Your task to perform on an android device: What's on my calendar tomorrow? Image 0: 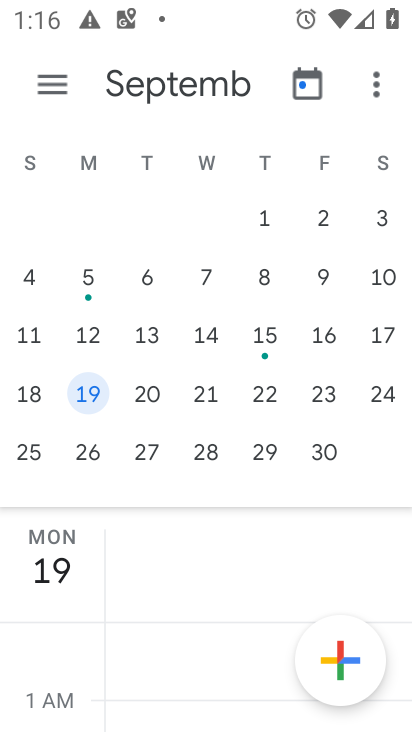
Step 0: drag from (58, 274) to (407, 321)
Your task to perform on an android device: What's on my calendar tomorrow? Image 1: 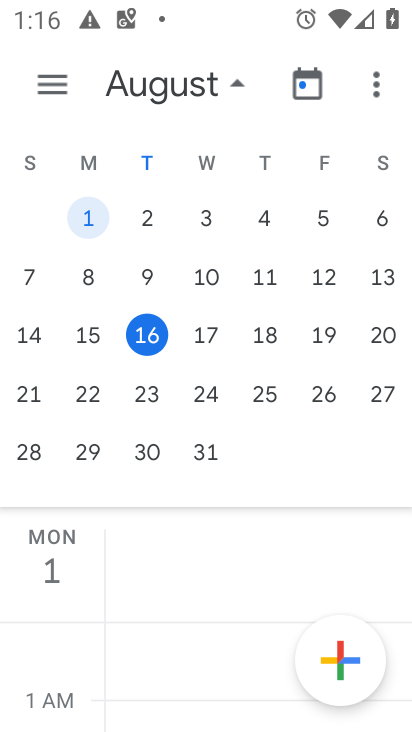
Step 1: click (144, 325)
Your task to perform on an android device: What's on my calendar tomorrow? Image 2: 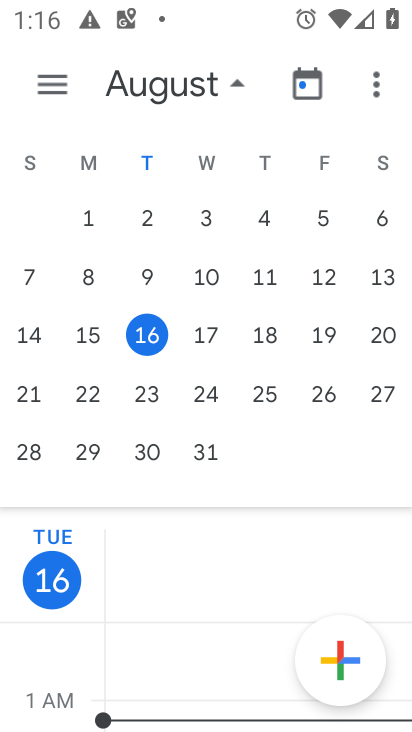
Step 2: drag from (208, 560) to (282, 79)
Your task to perform on an android device: What's on my calendar tomorrow? Image 3: 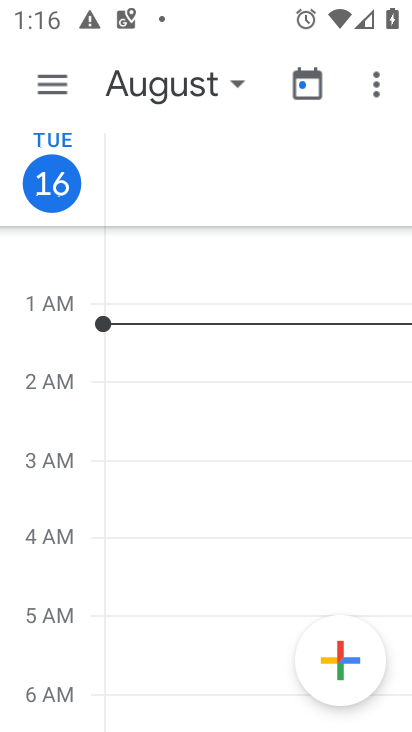
Step 3: click (155, 76)
Your task to perform on an android device: What's on my calendar tomorrow? Image 4: 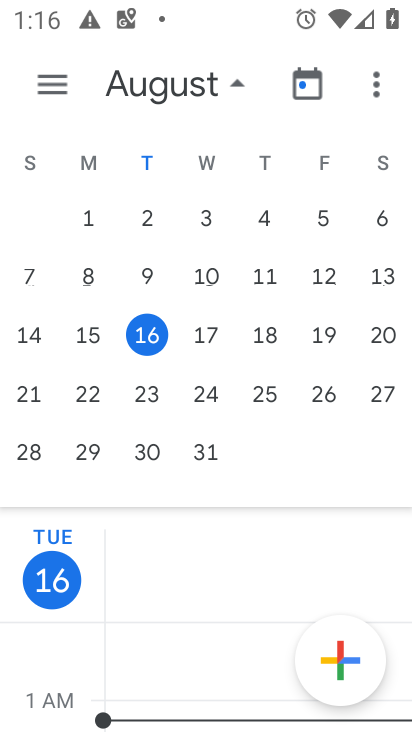
Step 4: click (215, 334)
Your task to perform on an android device: What's on my calendar tomorrow? Image 5: 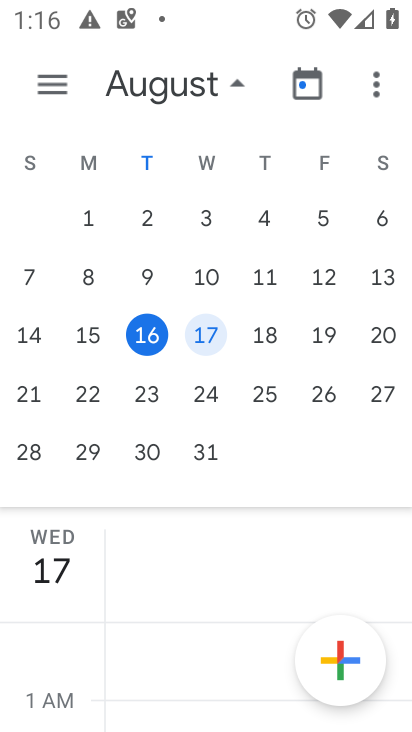
Step 5: task complete